Your task to perform on an android device: Search for dell xps on bestbuy, select the first entry, and add it to the cart. Image 0: 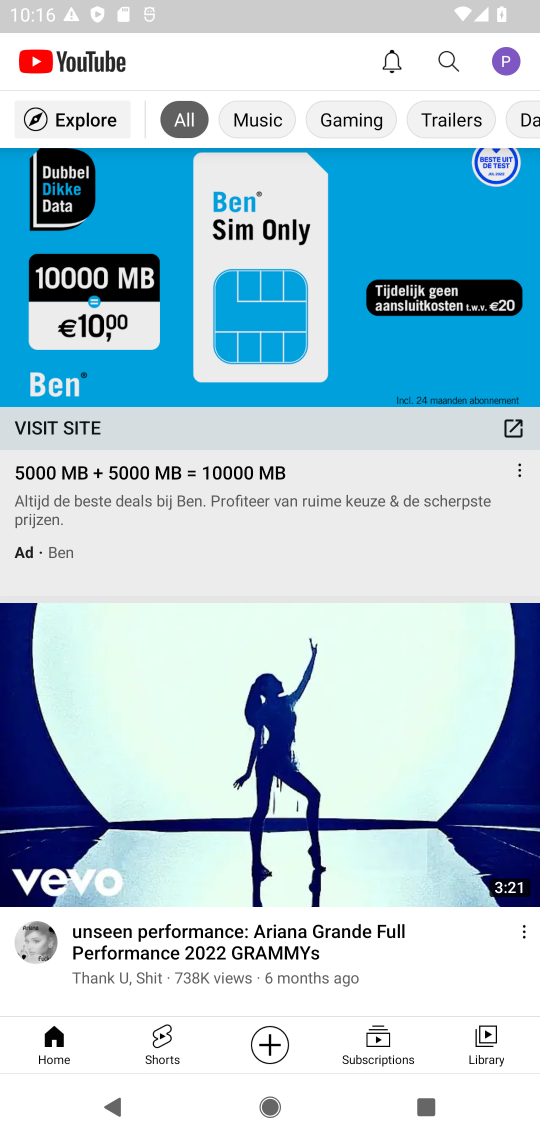
Step 0: press home button
Your task to perform on an android device: Search for dell xps on bestbuy, select the first entry, and add it to the cart. Image 1: 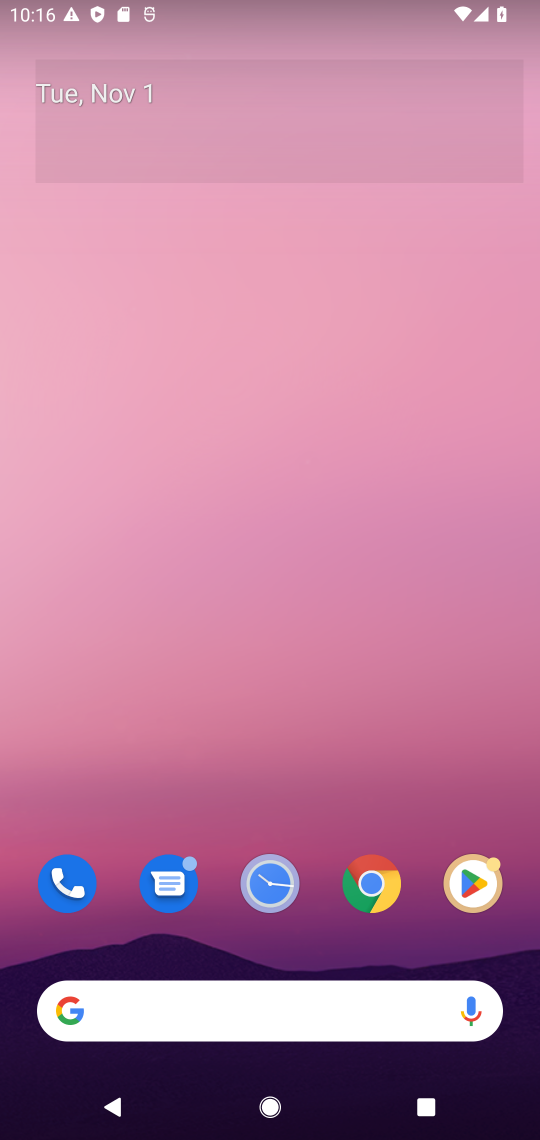
Step 1: drag from (187, 933) to (313, 176)
Your task to perform on an android device: Search for dell xps on bestbuy, select the first entry, and add it to the cart. Image 2: 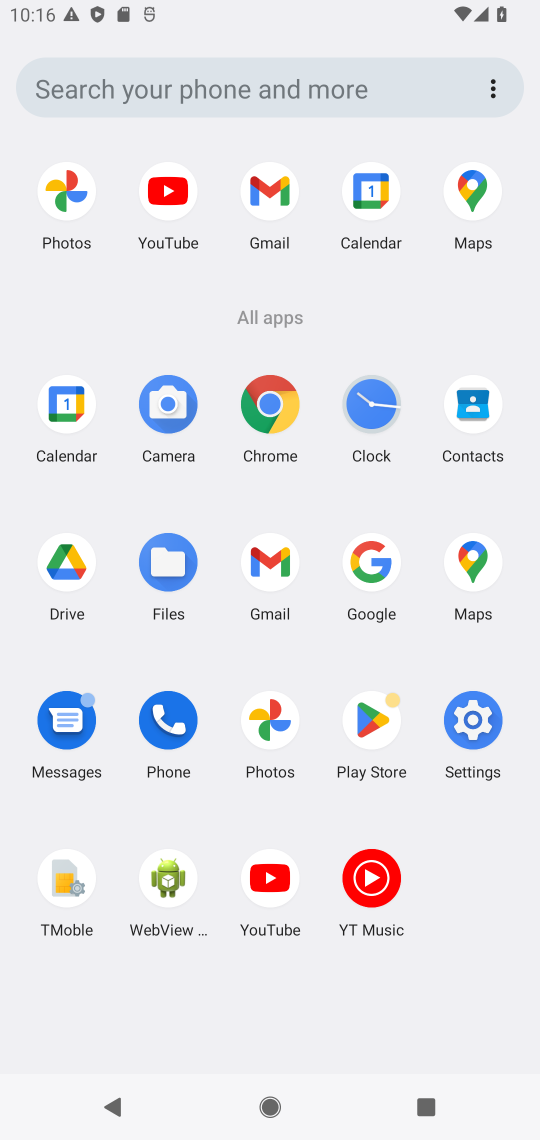
Step 2: click (254, 407)
Your task to perform on an android device: Search for dell xps on bestbuy, select the first entry, and add it to the cart. Image 3: 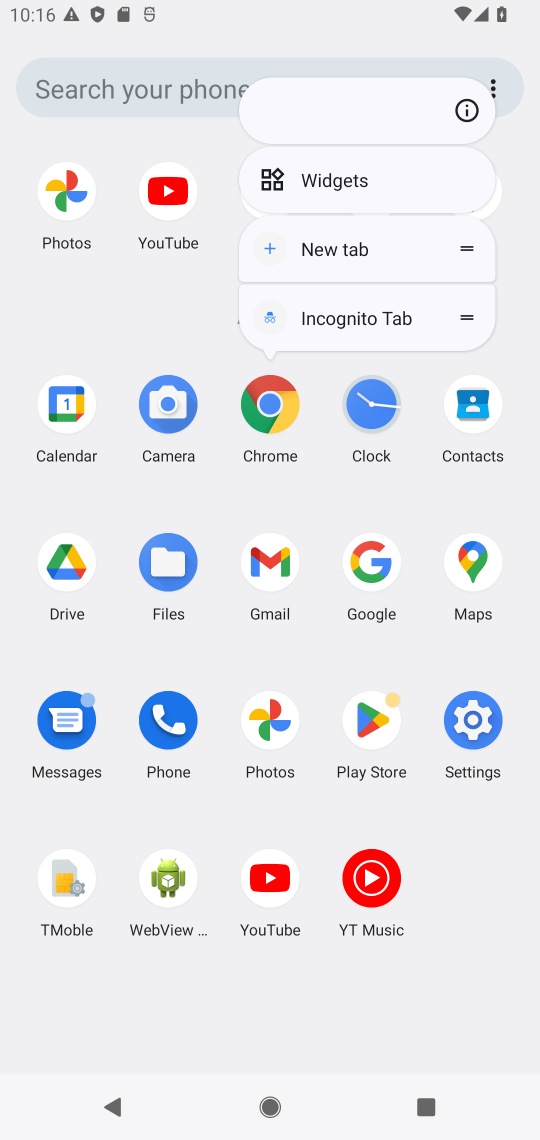
Step 3: click (283, 398)
Your task to perform on an android device: Search for dell xps on bestbuy, select the first entry, and add it to the cart. Image 4: 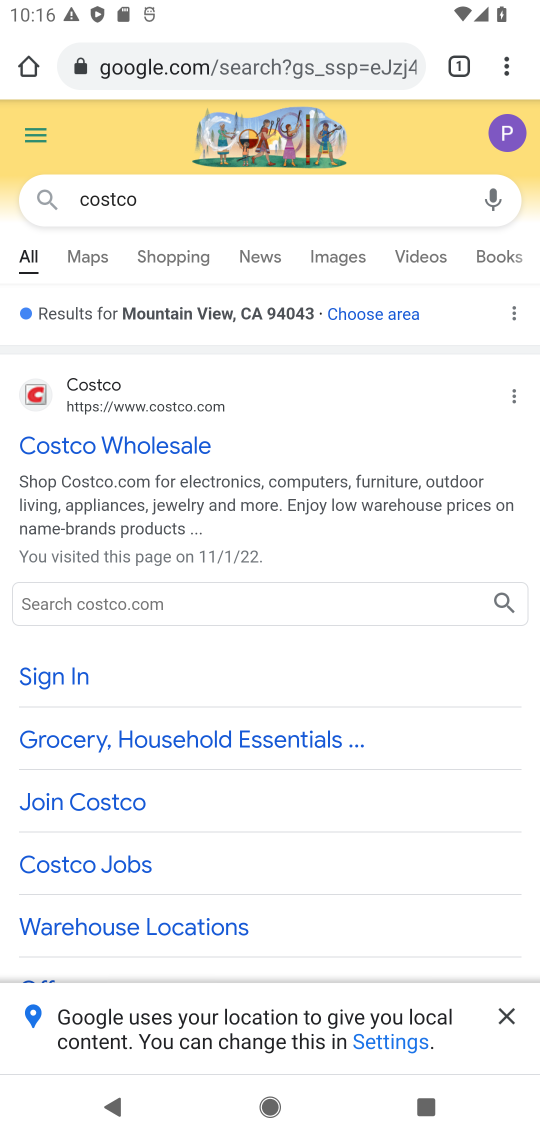
Step 4: click (281, 67)
Your task to perform on an android device: Search for dell xps on bestbuy, select the first entry, and add it to the cart. Image 5: 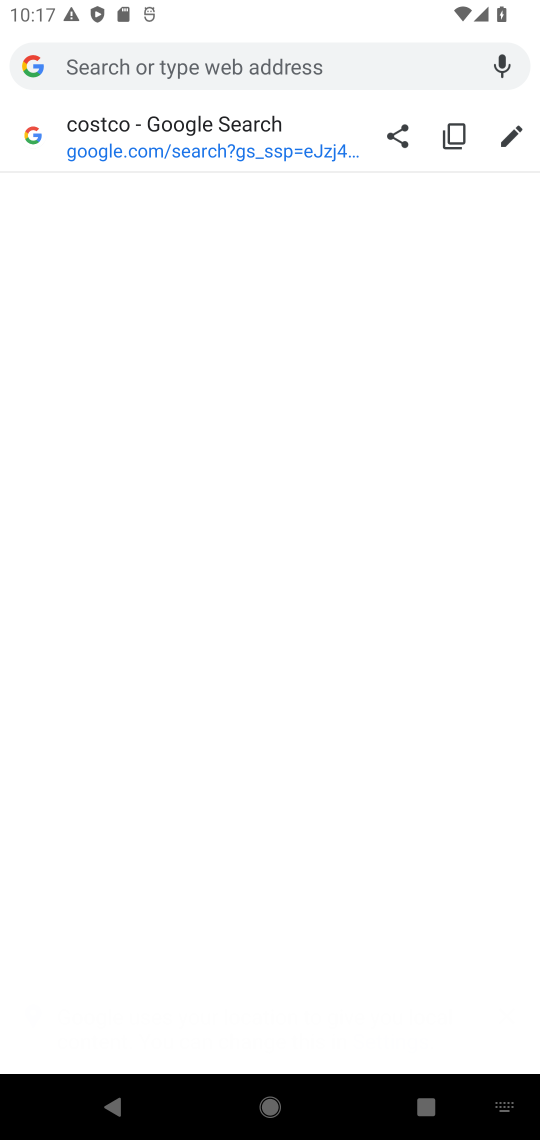
Step 5: type "bestbuy"
Your task to perform on an android device: Search for dell xps on bestbuy, select the first entry, and add it to the cart. Image 6: 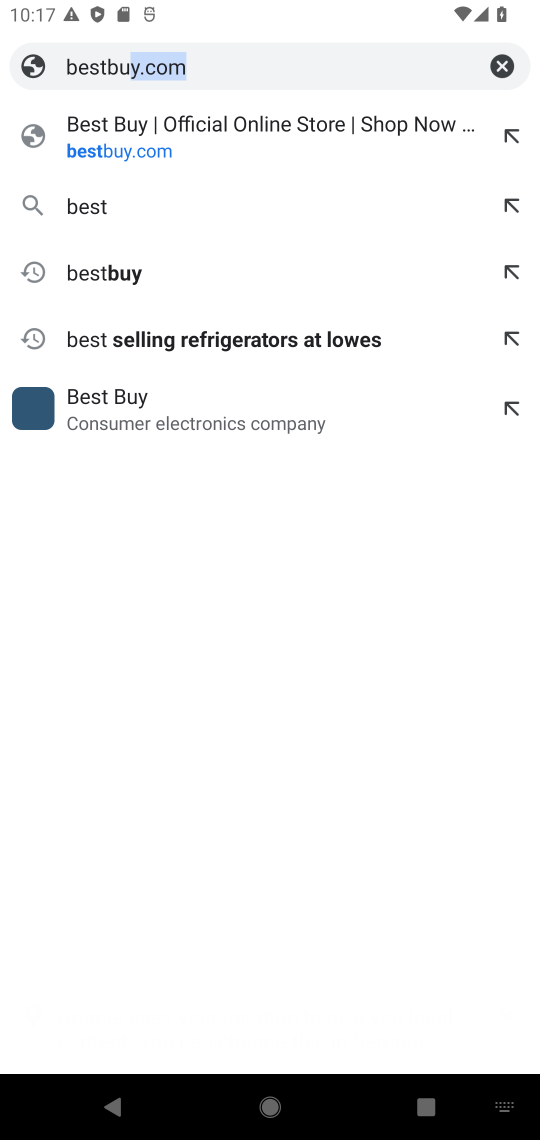
Step 6: press enter
Your task to perform on an android device: Search for dell xps on bestbuy, select the first entry, and add it to the cart. Image 7: 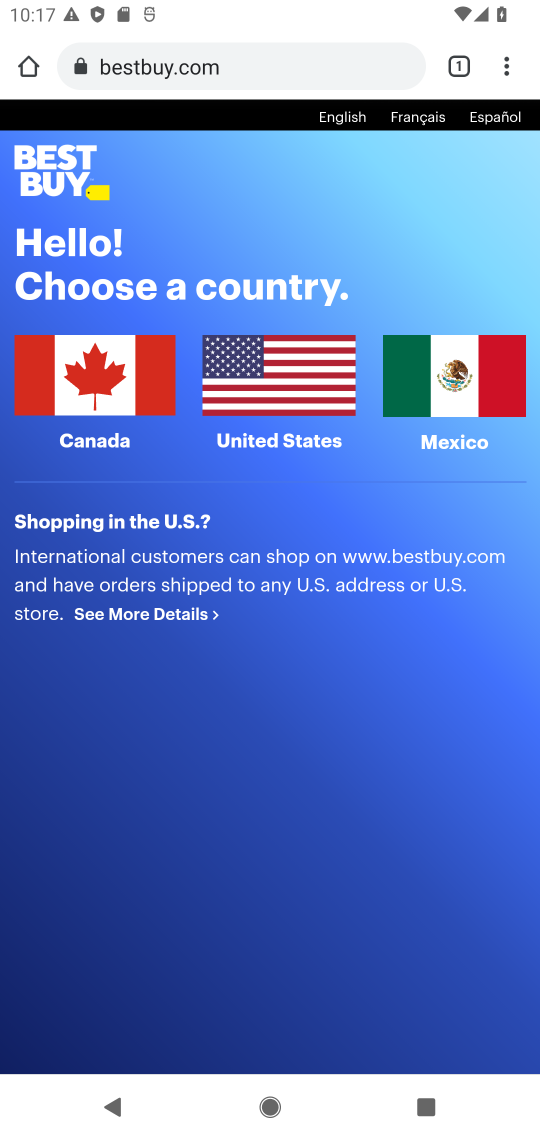
Step 7: click (111, 405)
Your task to perform on an android device: Search for dell xps on bestbuy, select the first entry, and add it to the cart. Image 8: 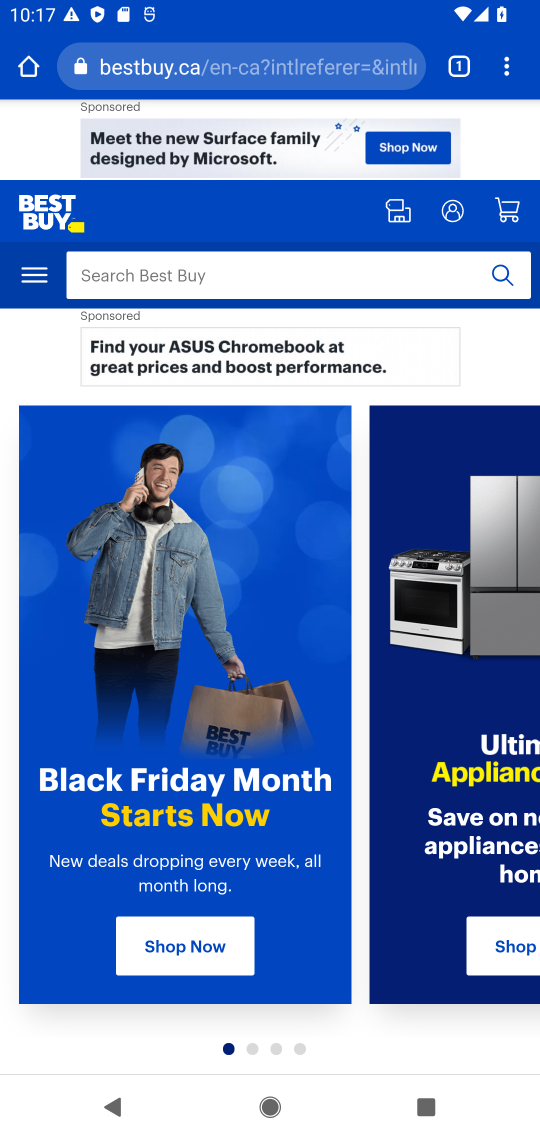
Step 8: click (162, 244)
Your task to perform on an android device: Search for dell xps on bestbuy, select the first entry, and add it to the cart. Image 9: 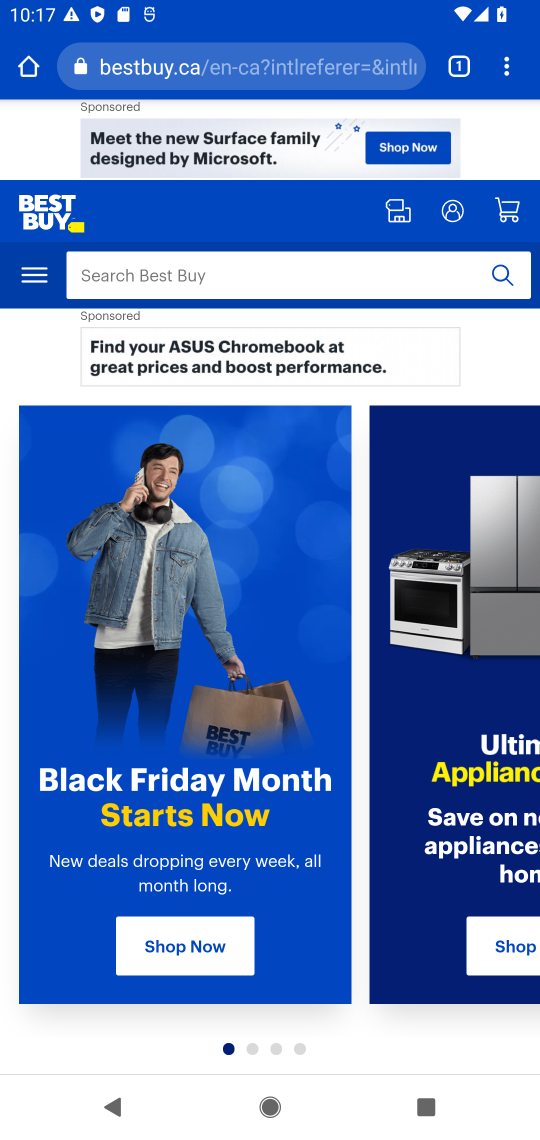
Step 9: click (211, 286)
Your task to perform on an android device: Search for dell xps on bestbuy, select the first entry, and add it to the cart. Image 10: 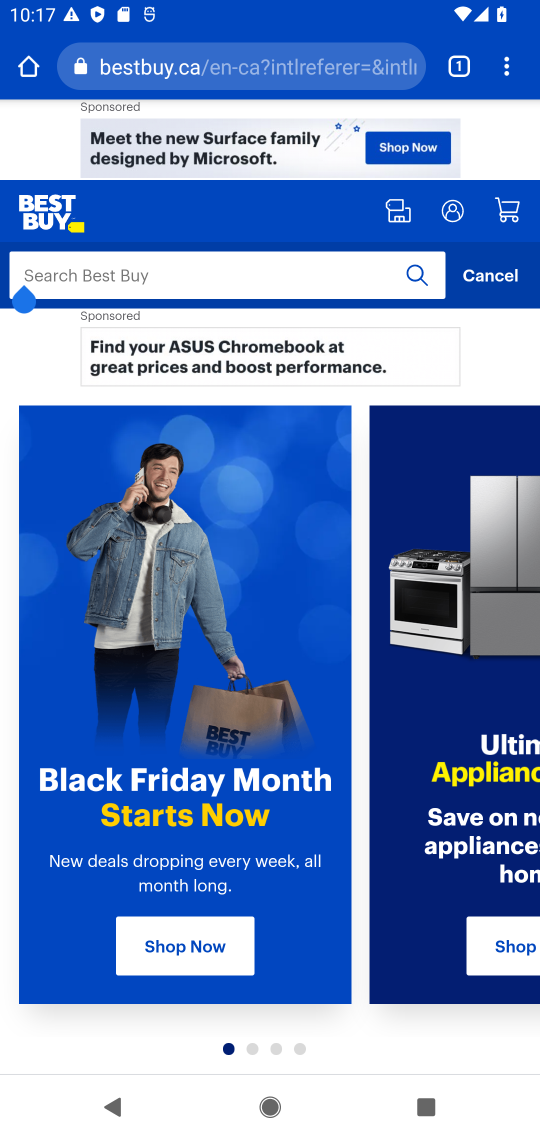
Step 10: press enter
Your task to perform on an android device: Search for dell xps on bestbuy, select the first entry, and add it to the cart. Image 11: 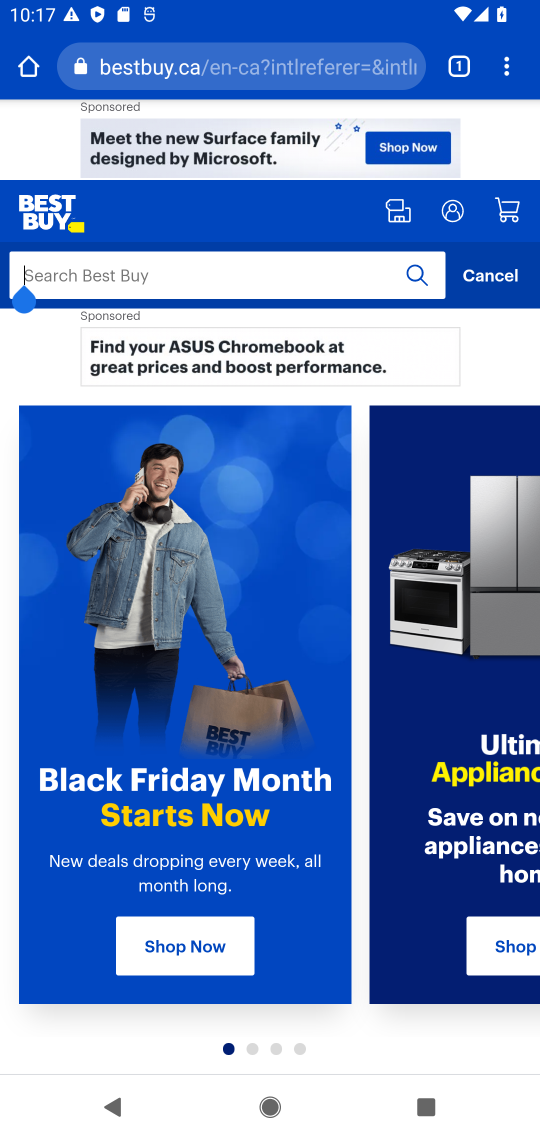
Step 11: type " dell xps "
Your task to perform on an android device: Search for dell xps on bestbuy, select the first entry, and add it to the cart. Image 12: 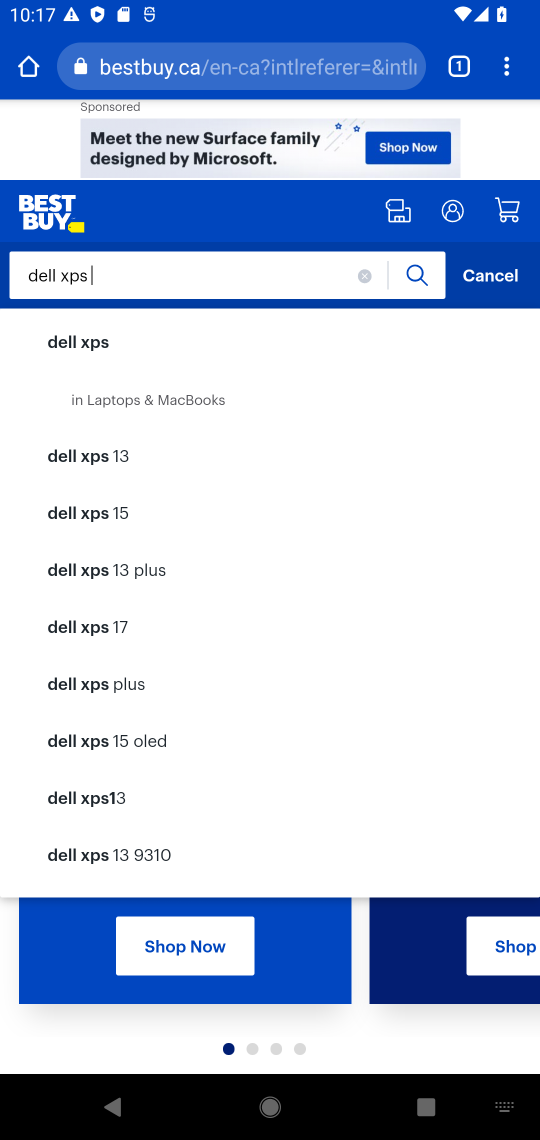
Step 12: press enter
Your task to perform on an android device: Search for dell xps on bestbuy, select the first entry, and add it to the cart. Image 13: 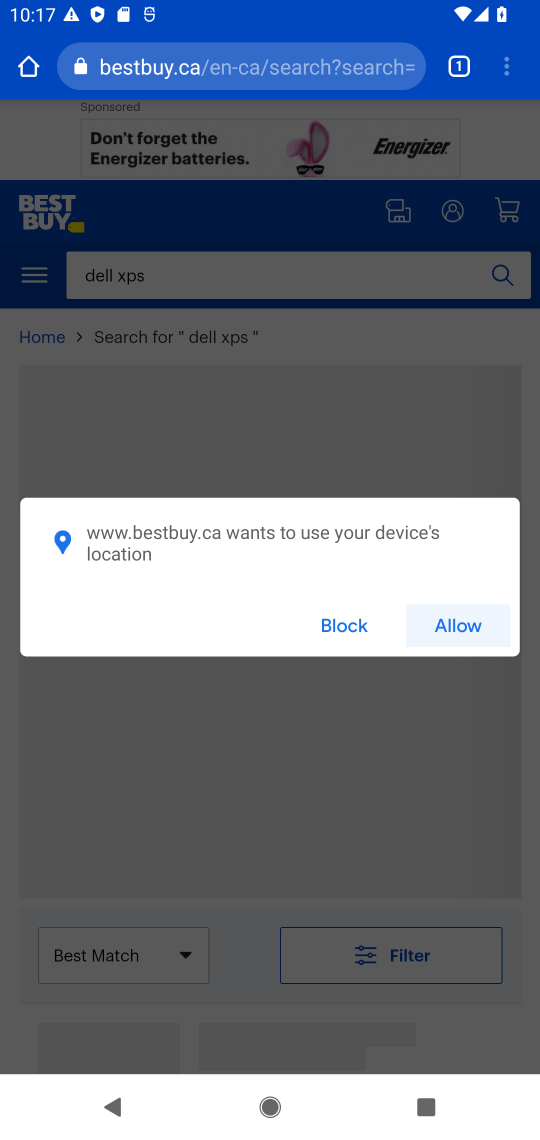
Step 13: click (461, 623)
Your task to perform on an android device: Search for dell xps on bestbuy, select the first entry, and add it to the cart. Image 14: 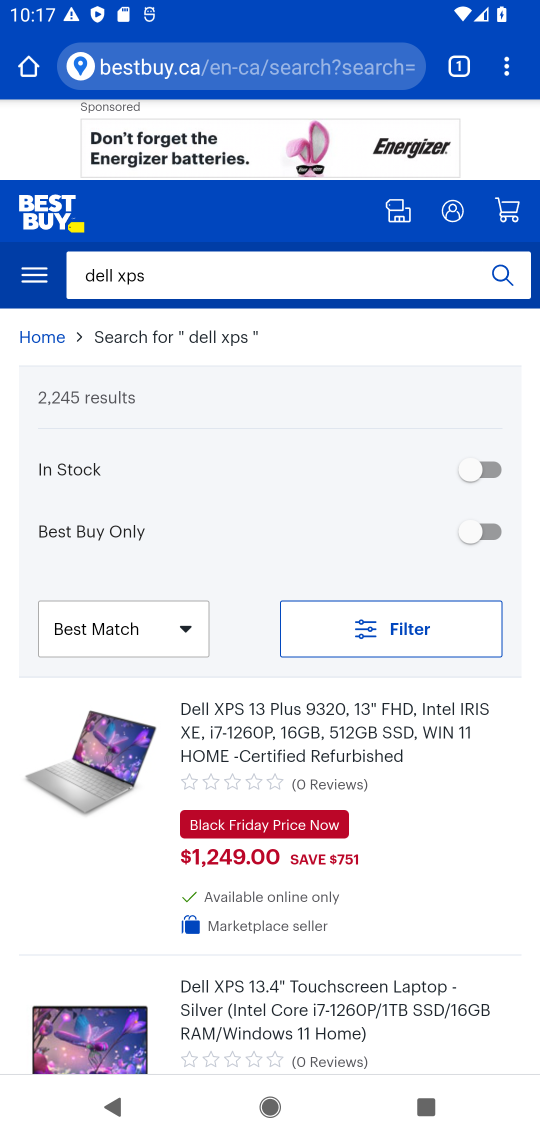
Step 14: click (288, 720)
Your task to perform on an android device: Search for dell xps on bestbuy, select the first entry, and add it to the cart. Image 15: 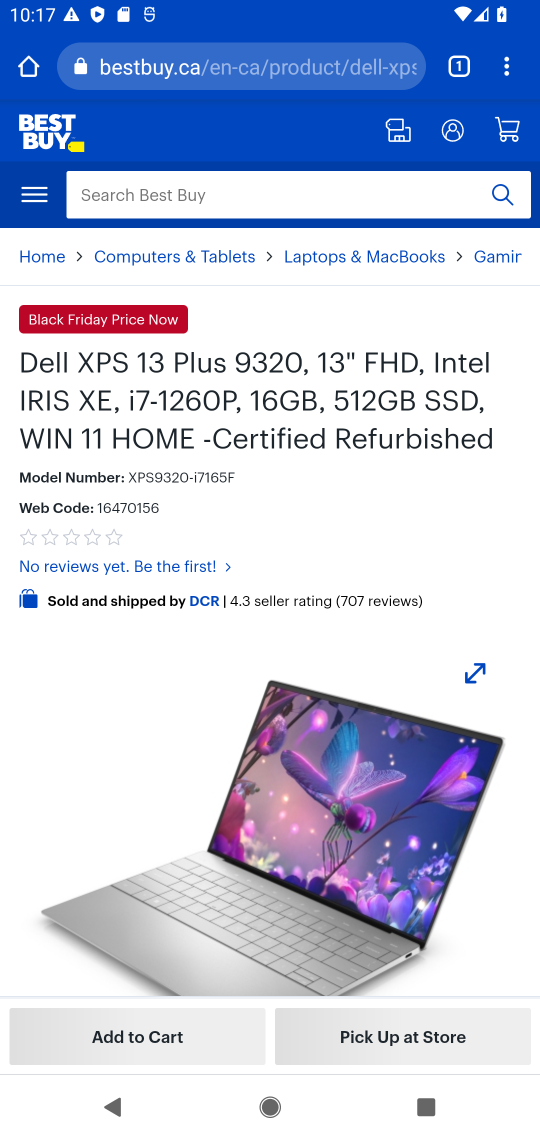
Step 15: drag from (282, 895) to (337, 740)
Your task to perform on an android device: Search for dell xps on bestbuy, select the first entry, and add it to the cart. Image 16: 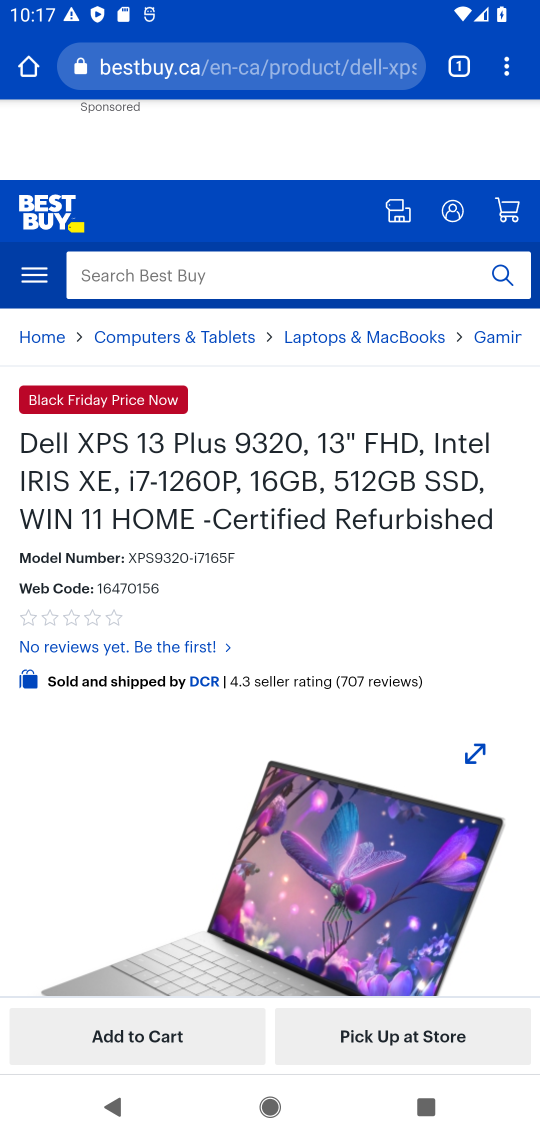
Step 16: click (154, 1034)
Your task to perform on an android device: Search for dell xps on bestbuy, select the first entry, and add it to the cart. Image 17: 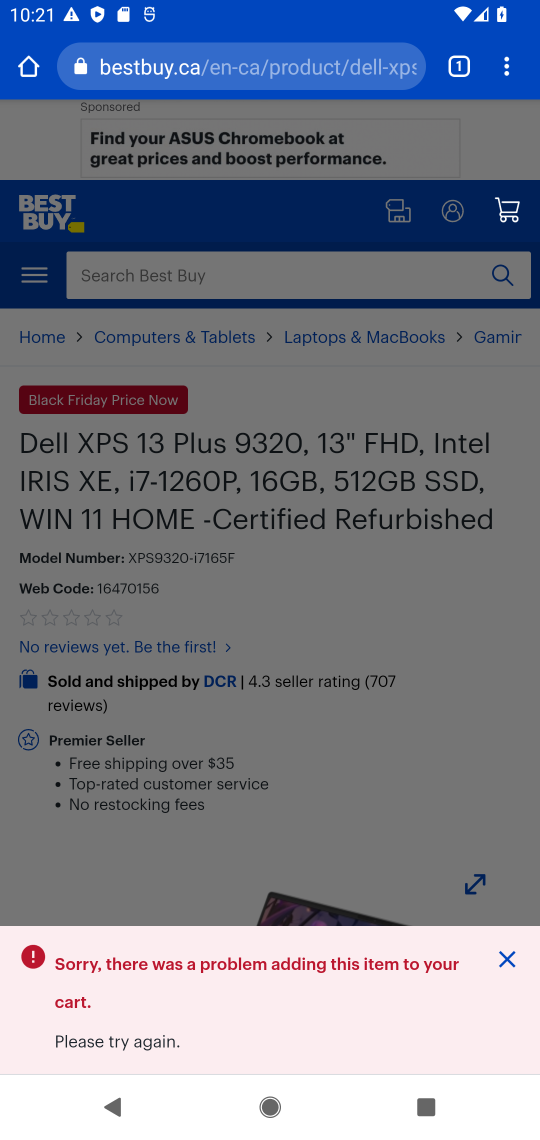
Step 17: task complete